Your task to perform on an android device: delete a single message in the gmail app Image 0: 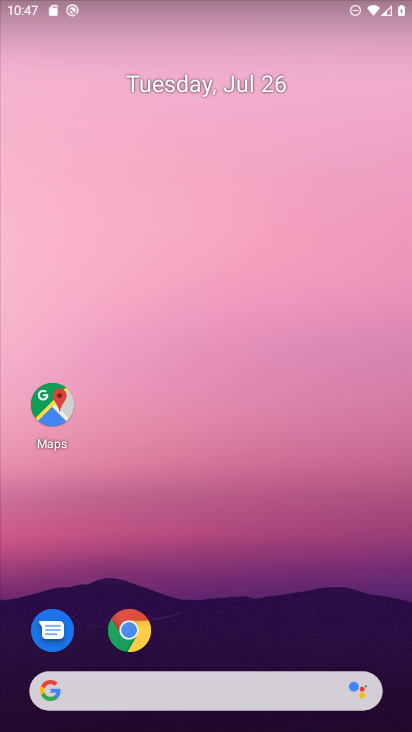
Step 0: drag from (362, 658) to (350, 197)
Your task to perform on an android device: delete a single message in the gmail app Image 1: 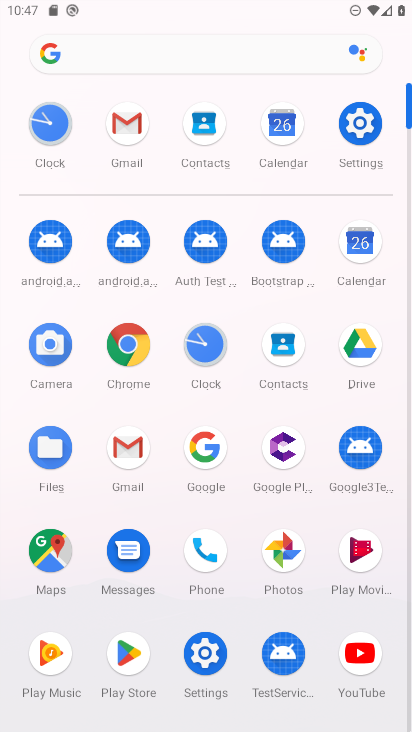
Step 1: click (126, 446)
Your task to perform on an android device: delete a single message in the gmail app Image 2: 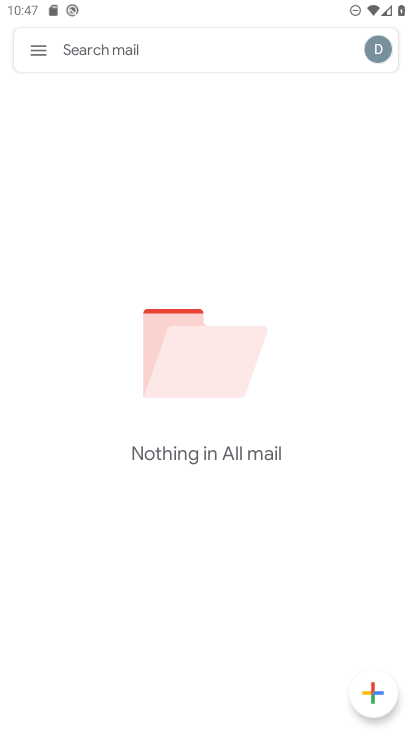
Step 2: click (38, 53)
Your task to perform on an android device: delete a single message in the gmail app Image 3: 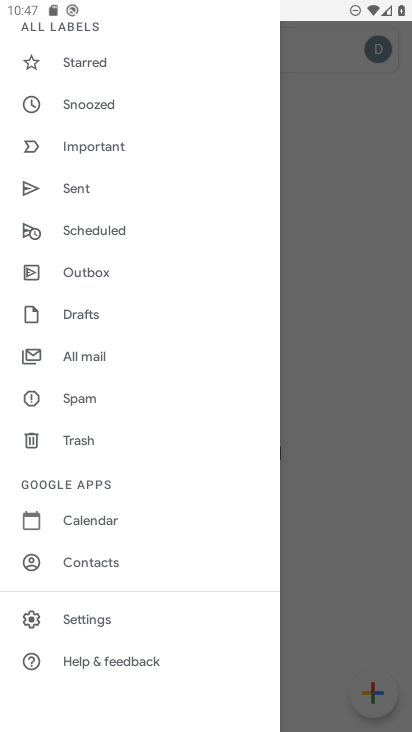
Step 3: click (94, 348)
Your task to perform on an android device: delete a single message in the gmail app Image 4: 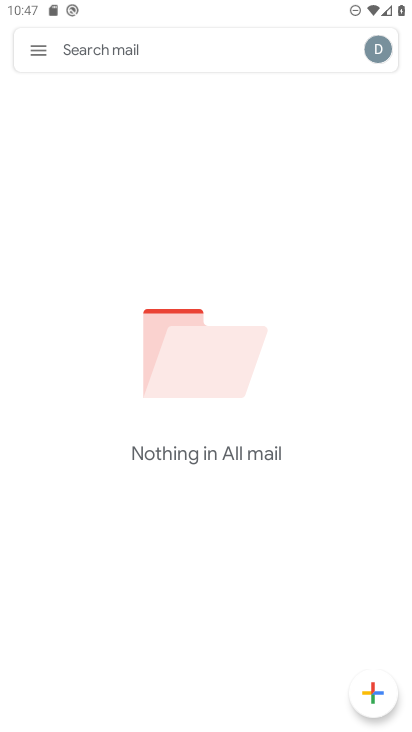
Step 4: task complete